Your task to perform on an android device: Empty the shopping cart on walmart.com. Image 0: 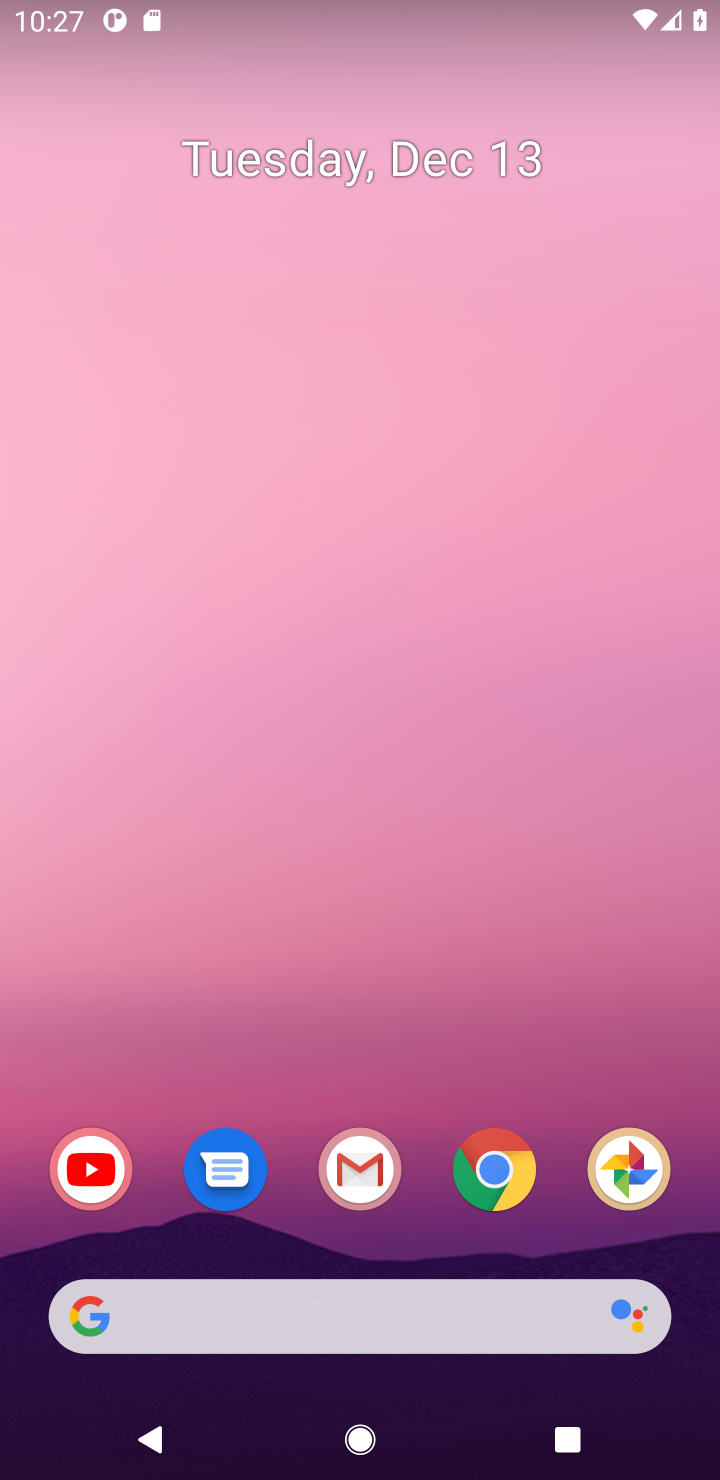
Step 0: click (477, 1330)
Your task to perform on an android device: Empty the shopping cart on walmart.com. Image 1: 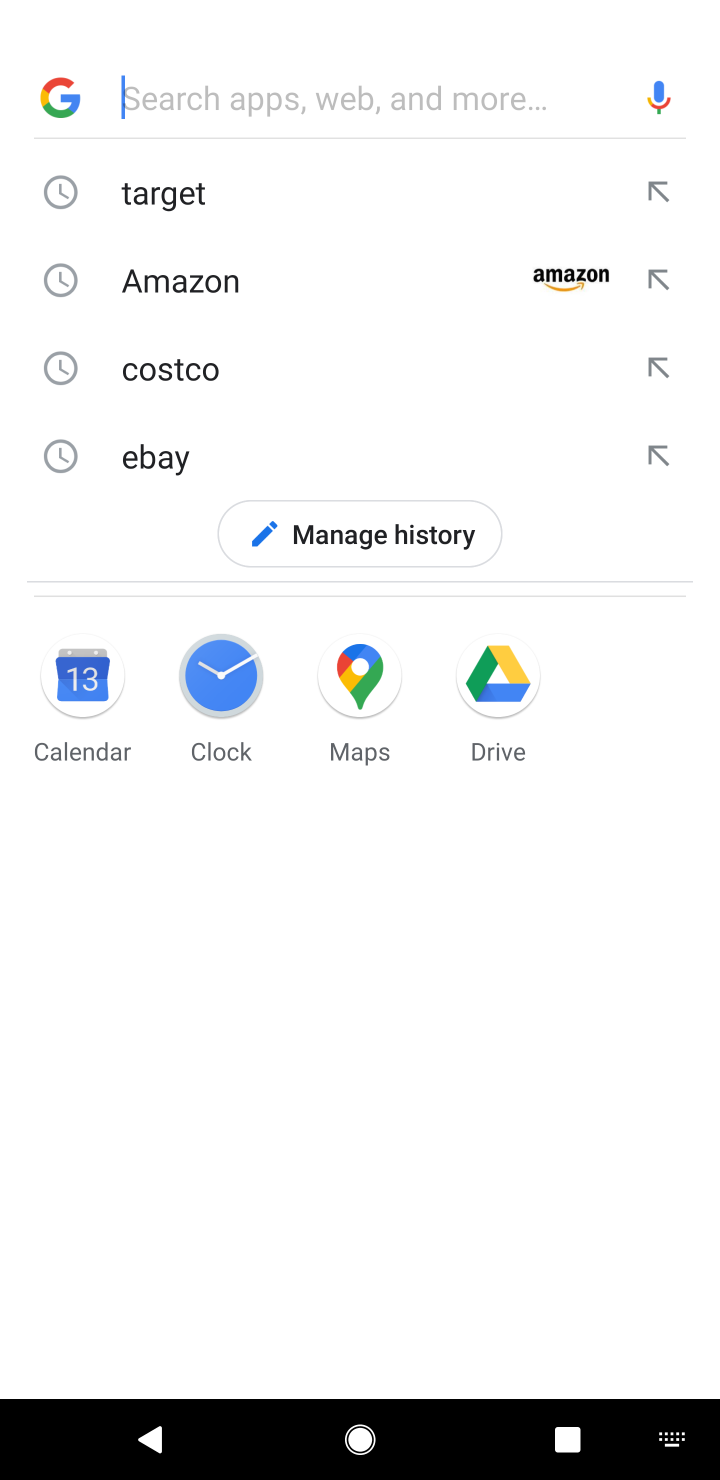
Step 1: type "walmart"
Your task to perform on an android device: Empty the shopping cart on walmart.com. Image 2: 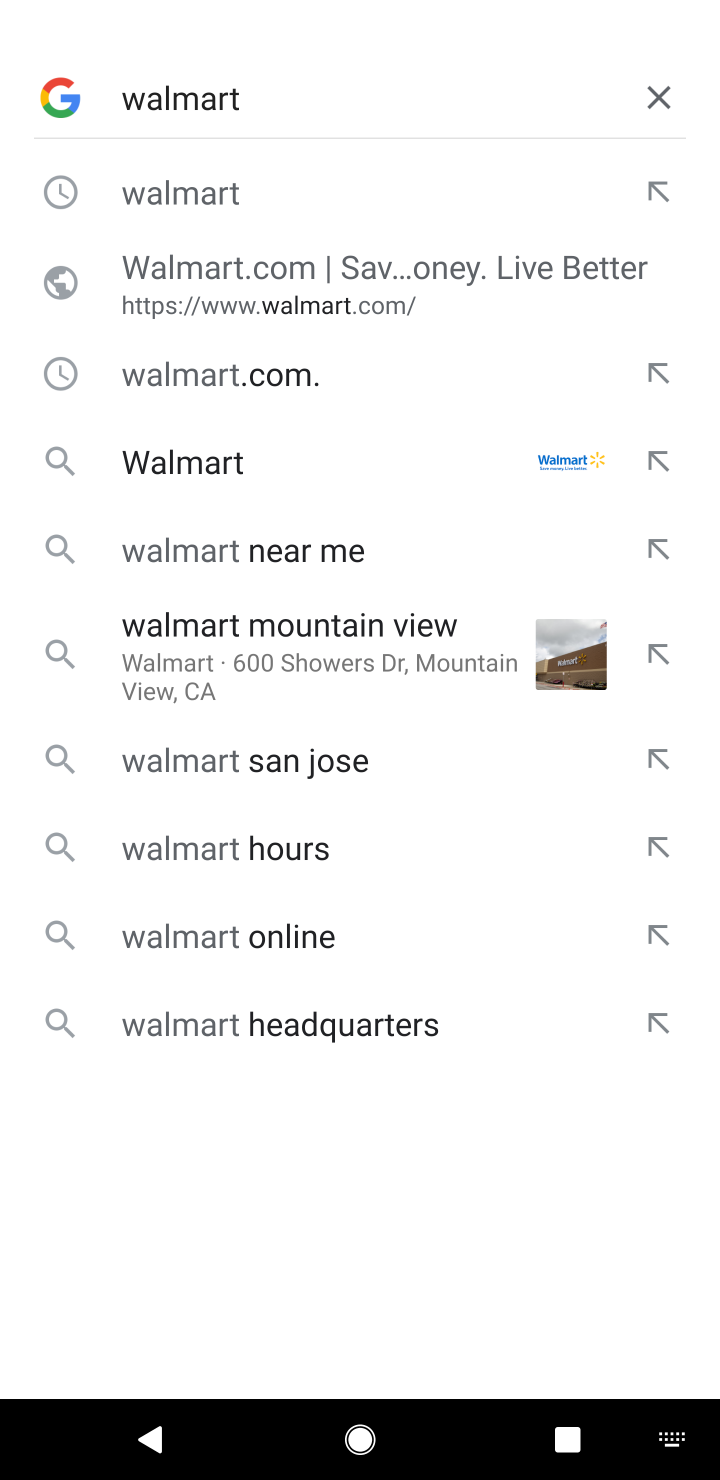
Step 2: click (300, 278)
Your task to perform on an android device: Empty the shopping cart on walmart.com. Image 3: 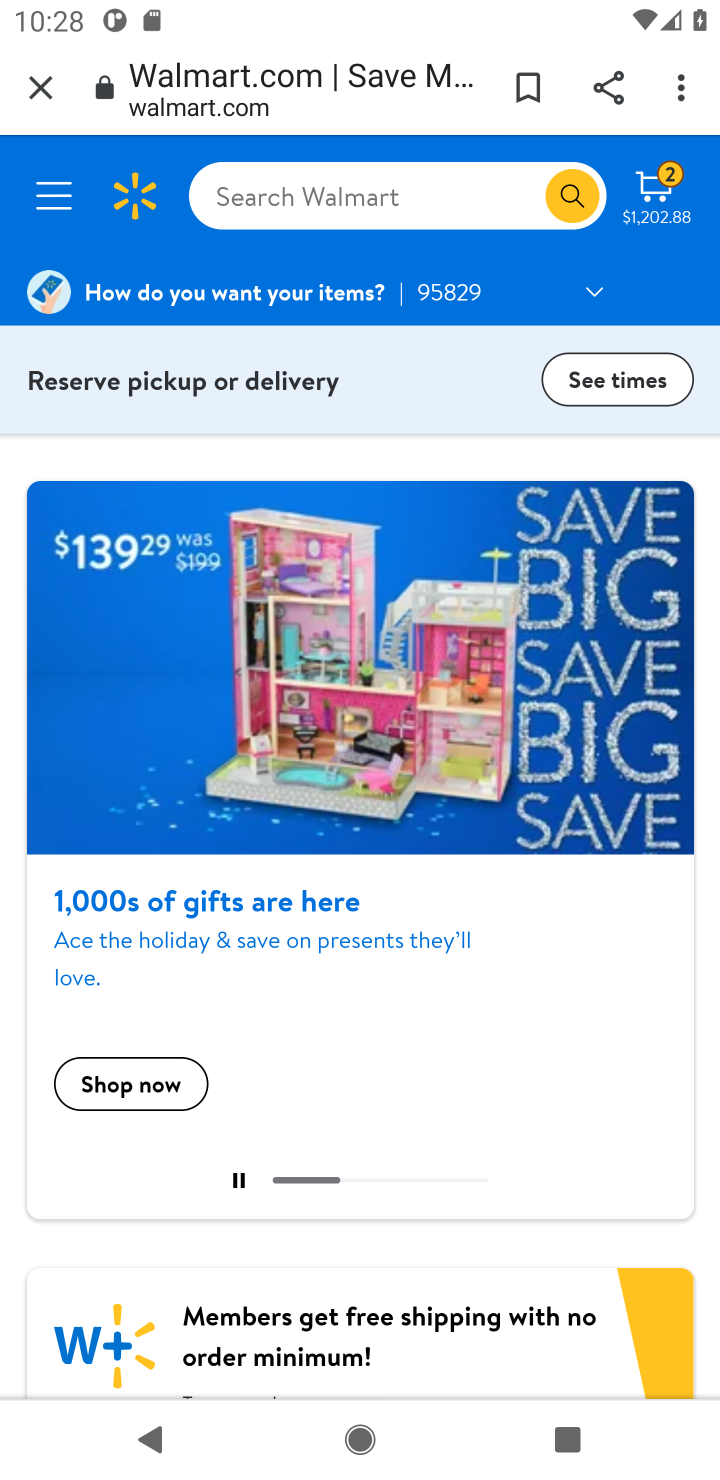
Step 3: click (354, 214)
Your task to perform on an android device: Empty the shopping cart on walmart.com. Image 4: 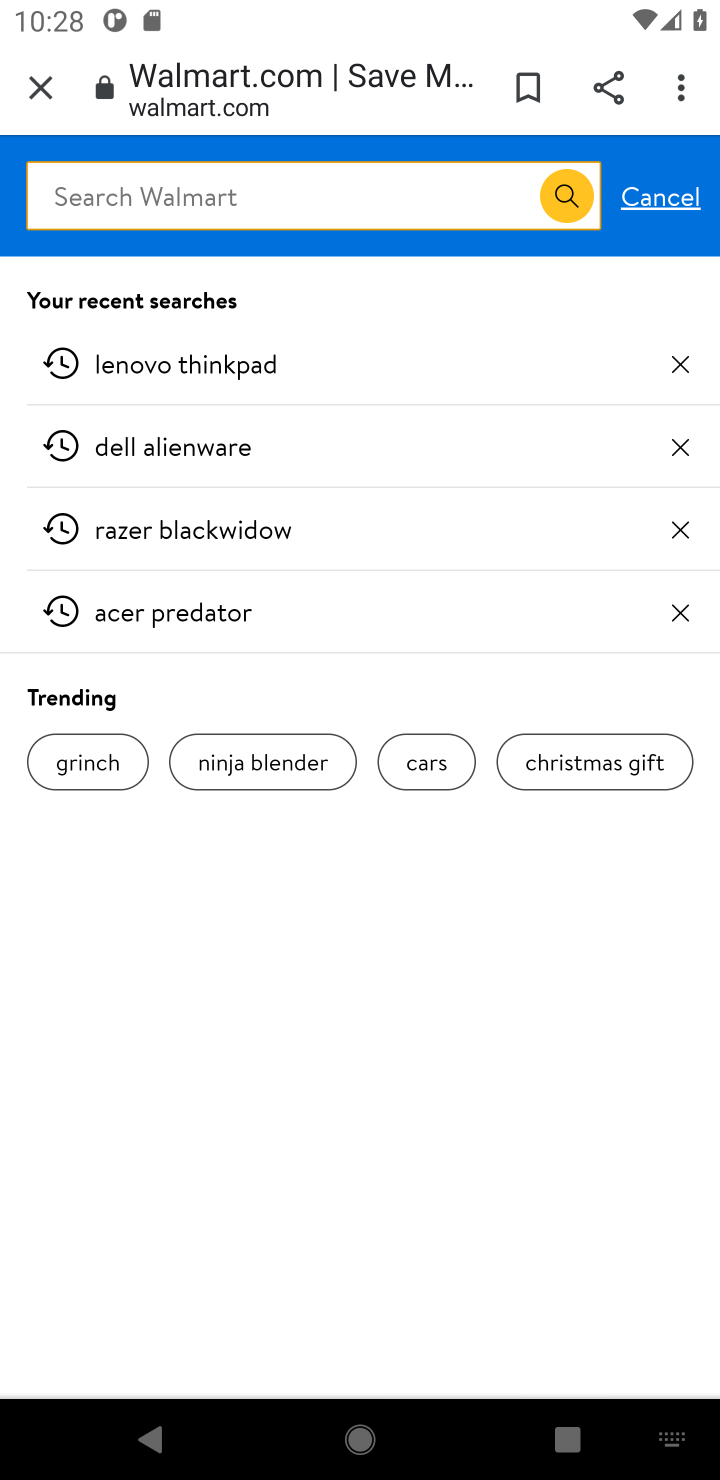
Step 4: click (666, 212)
Your task to perform on an android device: Empty the shopping cart on walmart.com. Image 5: 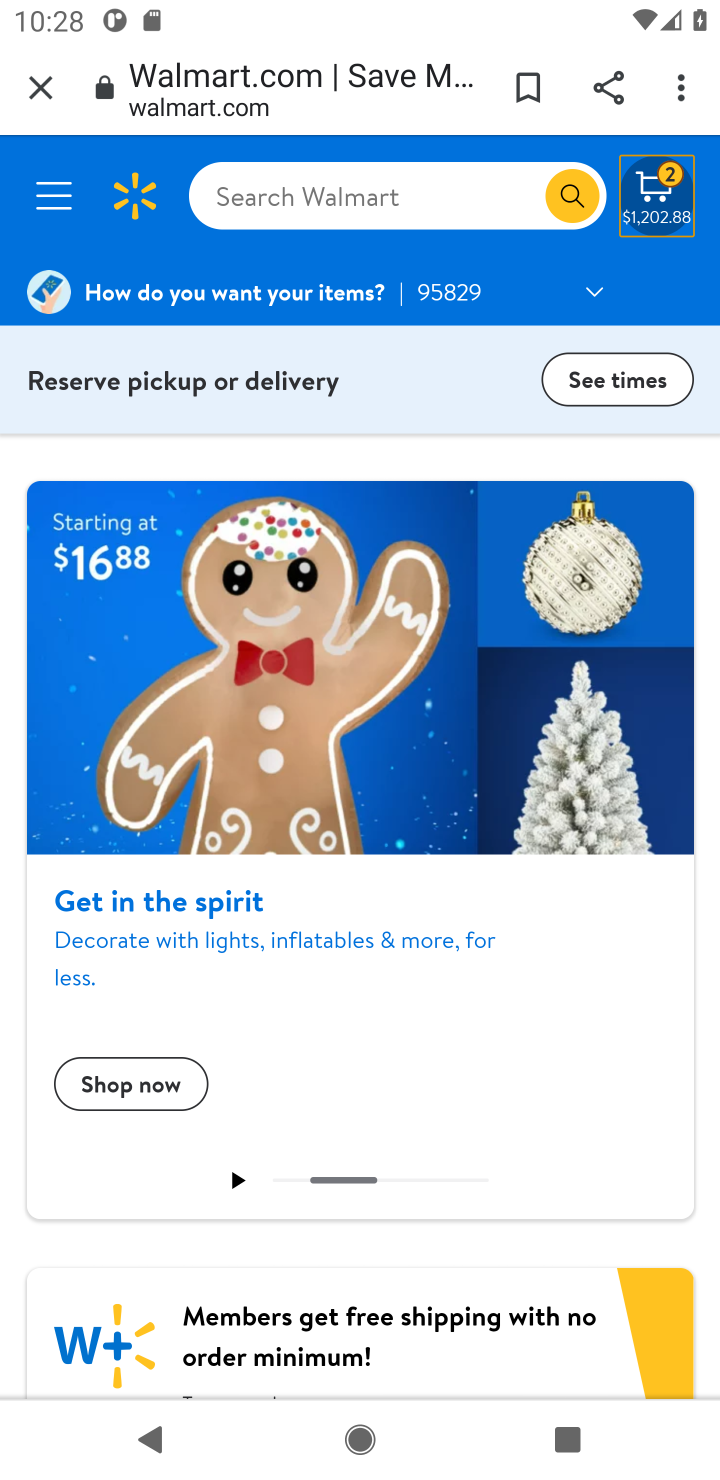
Step 5: click (666, 212)
Your task to perform on an android device: Empty the shopping cart on walmart.com. Image 6: 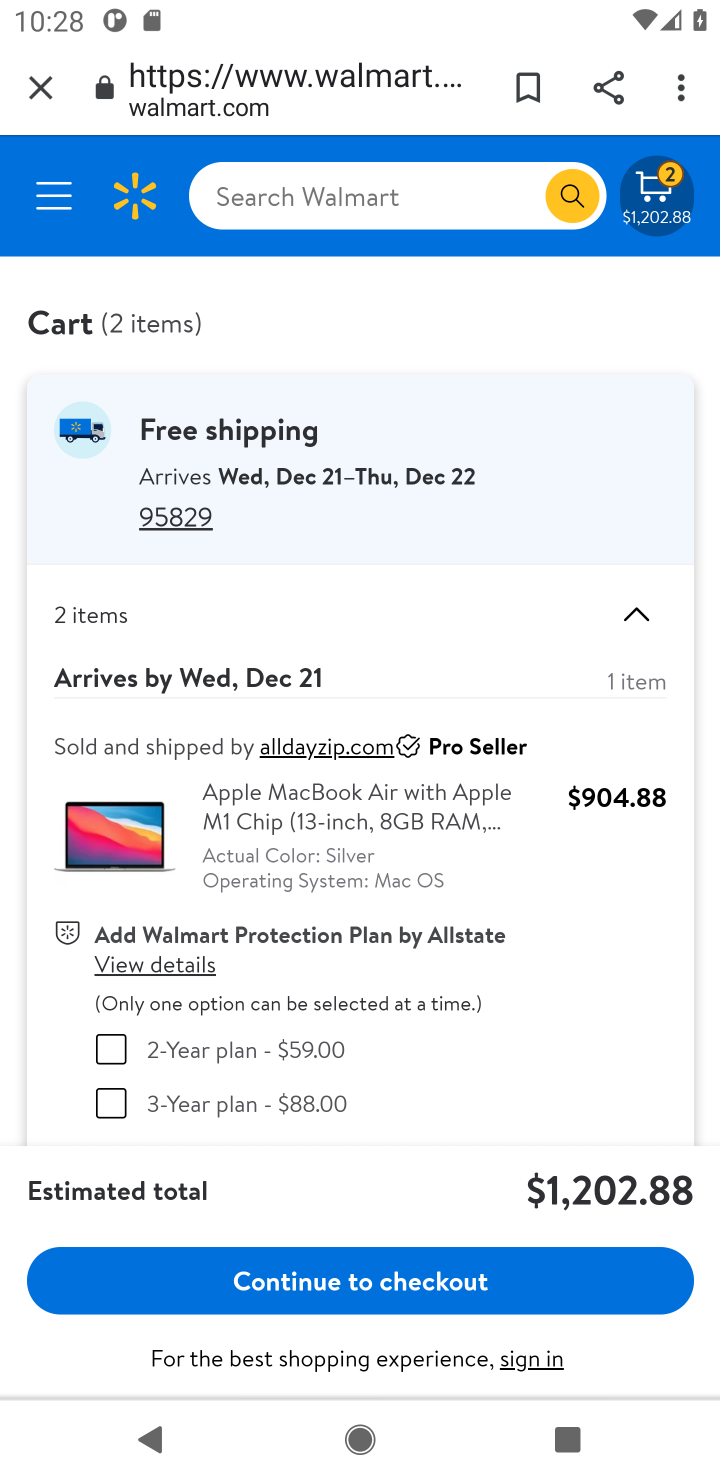
Step 6: drag from (365, 1118) to (393, 785)
Your task to perform on an android device: Empty the shopping cart on walmart.com. Image 7: 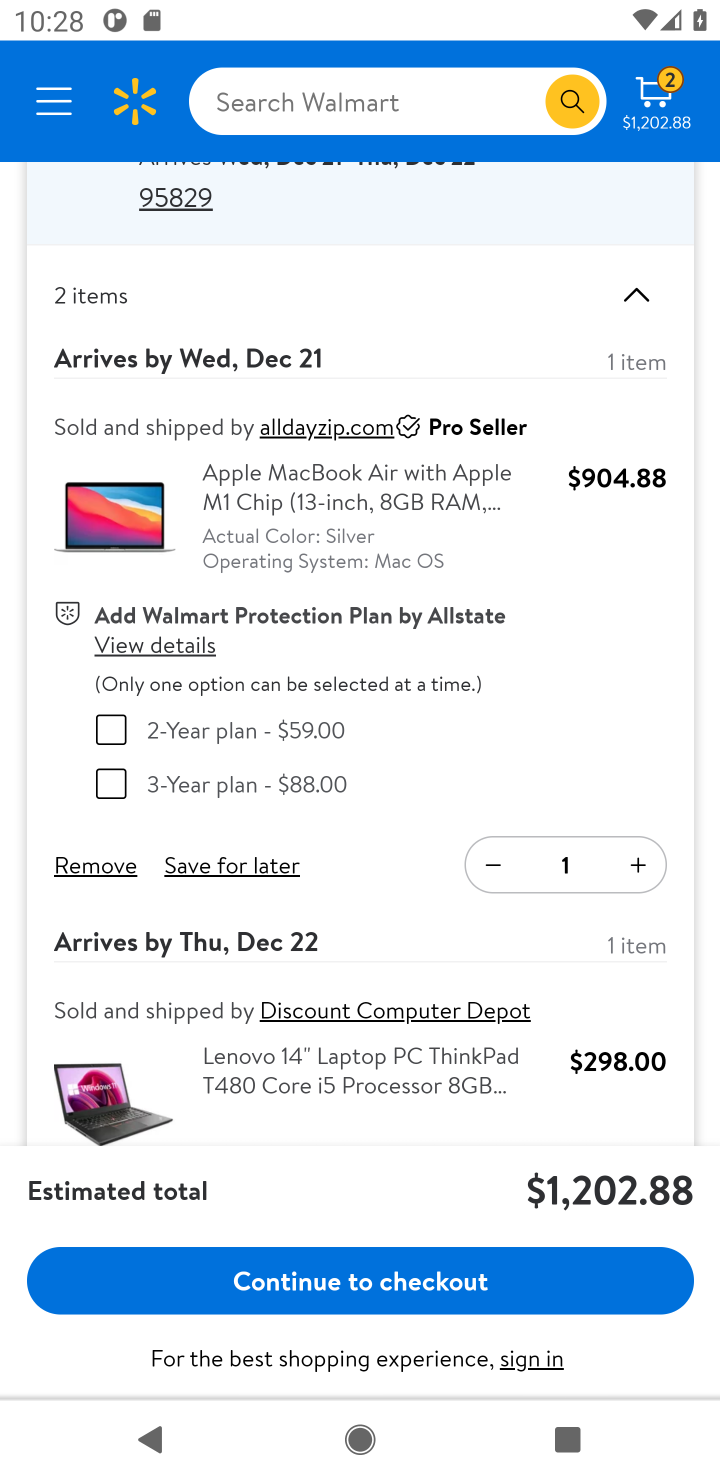
Step 7: click (92, 865)
Your task to perform on an android device: Empty the shopping cart on walmart.com. Image 8: 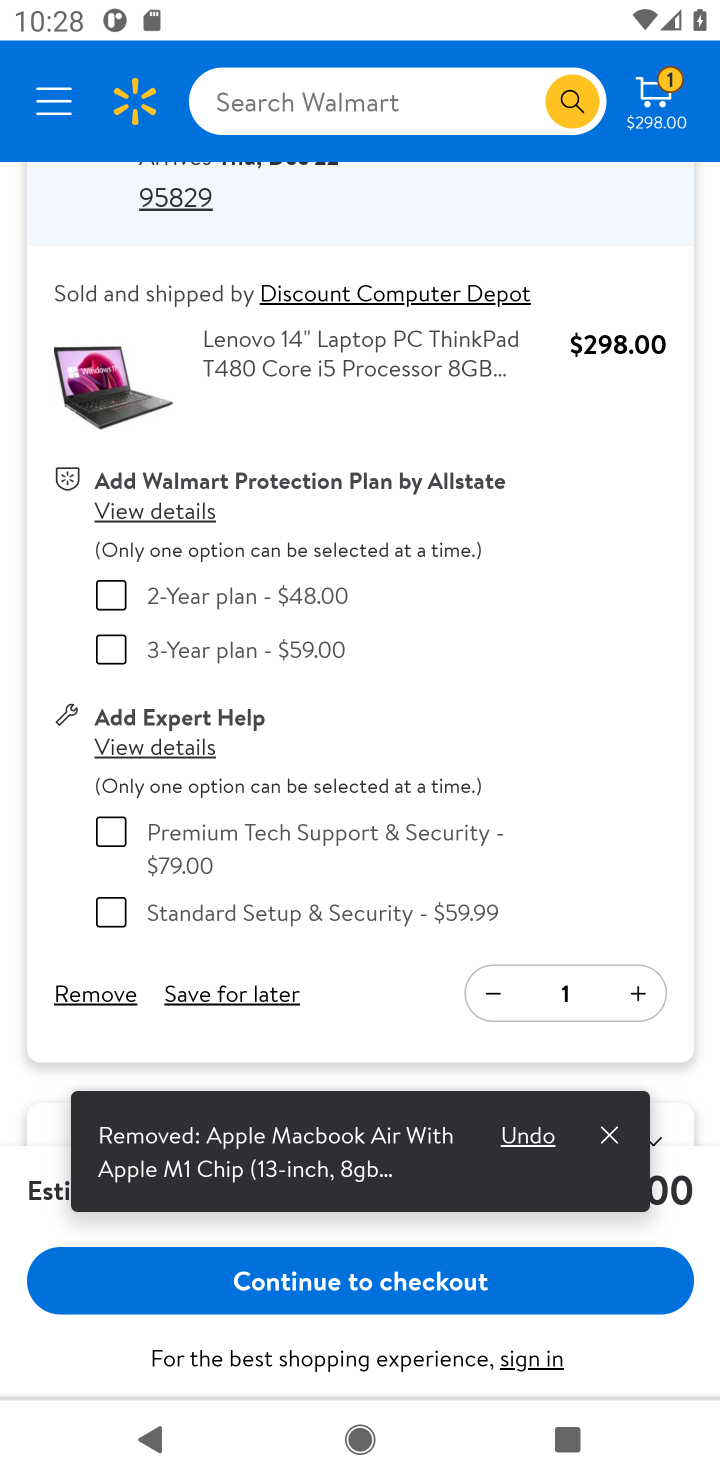
Step 8: click (82, 984)
Your task to perform on an android device: Empty the shopping cart on walmart.com. Image 9: 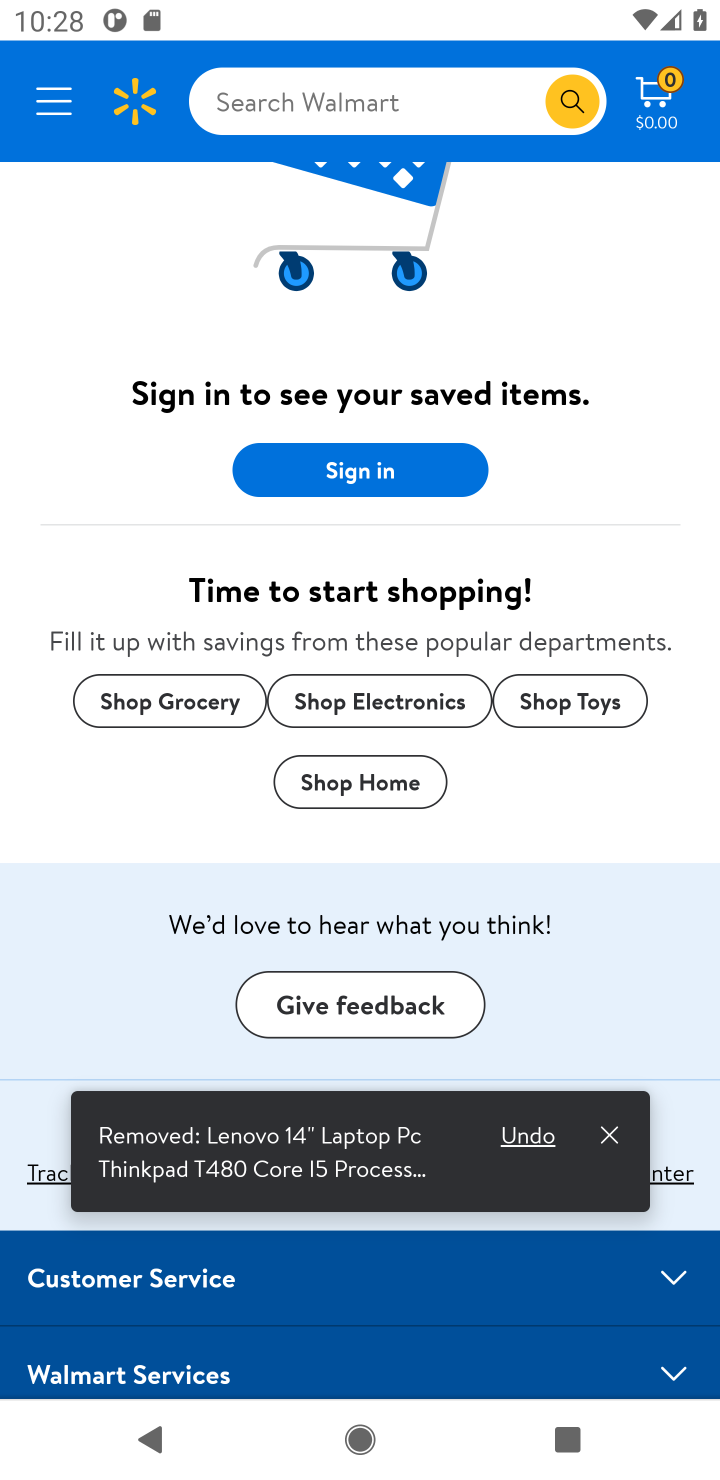
Step 9: task complete